Your task to perform on an android device: see sites visited before in the chrome app Image 0: 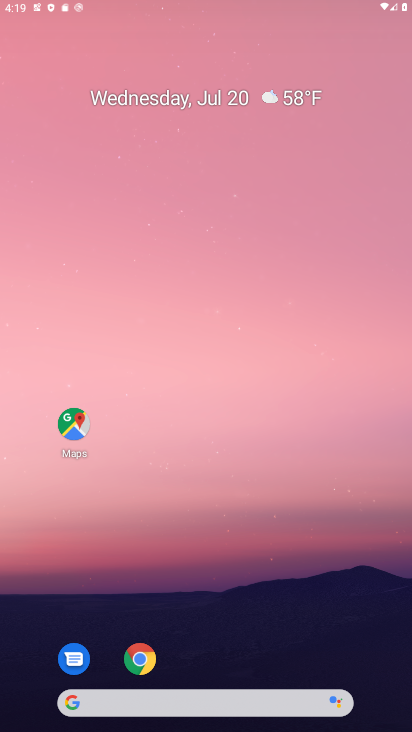
Step 0: drag from (264, 728) to (220, 149)
Your task to perform on an android device: see sites visited before in the chrome app Image 1: 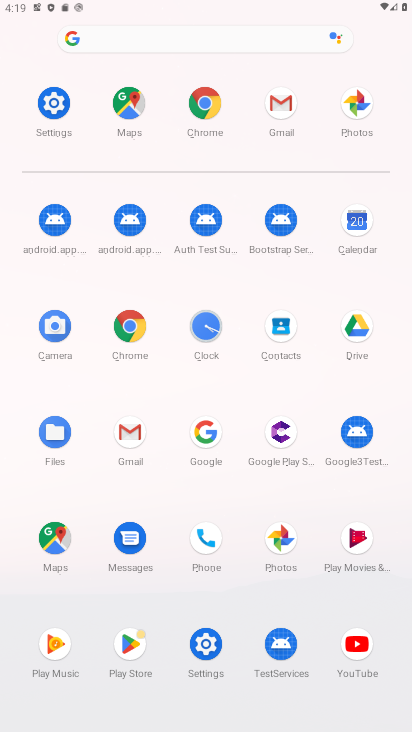
Step 1: click (204, 109)
Your task to perform on an android device: see sites visited before in the chrome app Image 2: 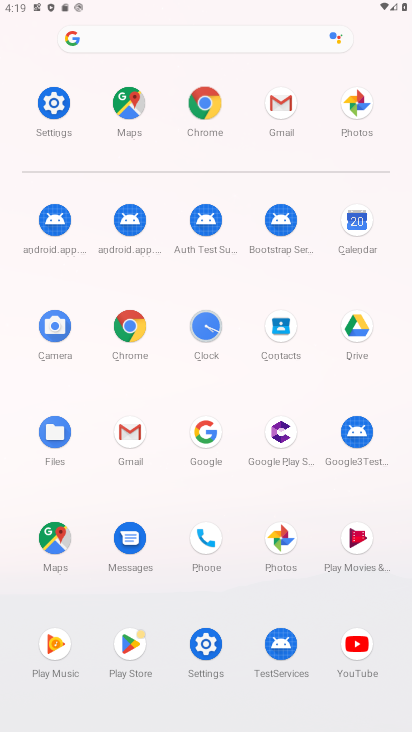
Step 2: click (204, 108)
Your task to perform on an android device: see sites visited before in the chrome app Image 3: 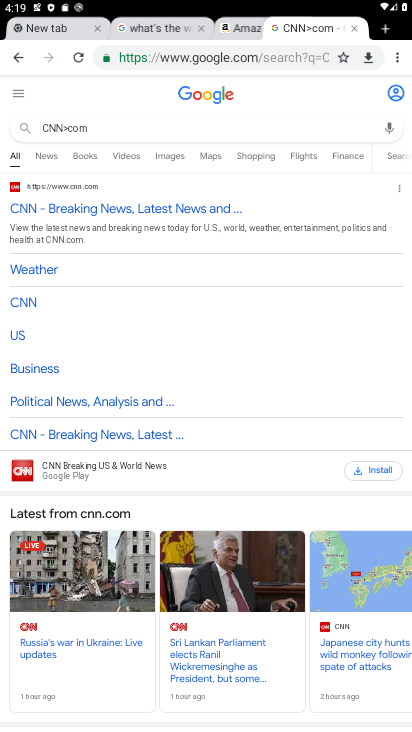
Step 3: drag from (398, 54) to (269, 139)
Your task to perform on an android device: see sites visited before in the chrome app Image 4: 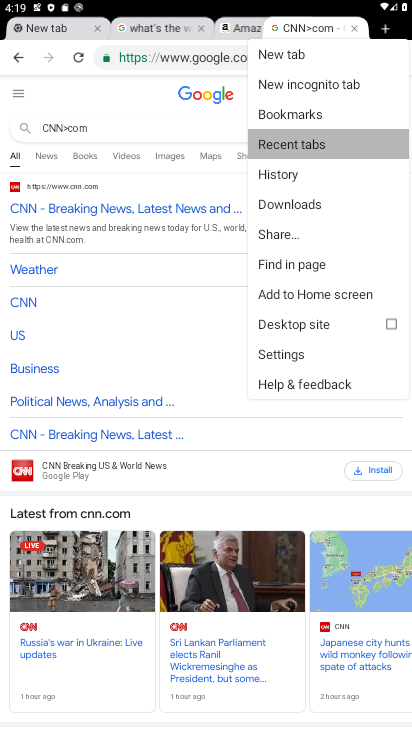
Step 4: click (269, 138)
Your task to perform on an android device: see sites visited before in the chrome app Image 5: 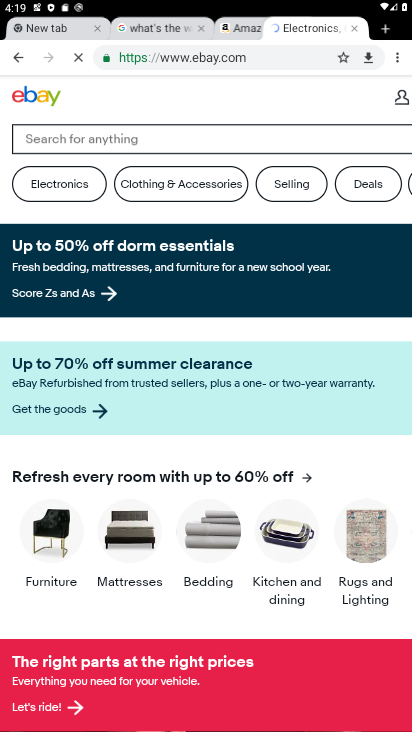
Step 5: task complete